Your task to perform on an android device: turn on the 24-hour format for clock Image 0: 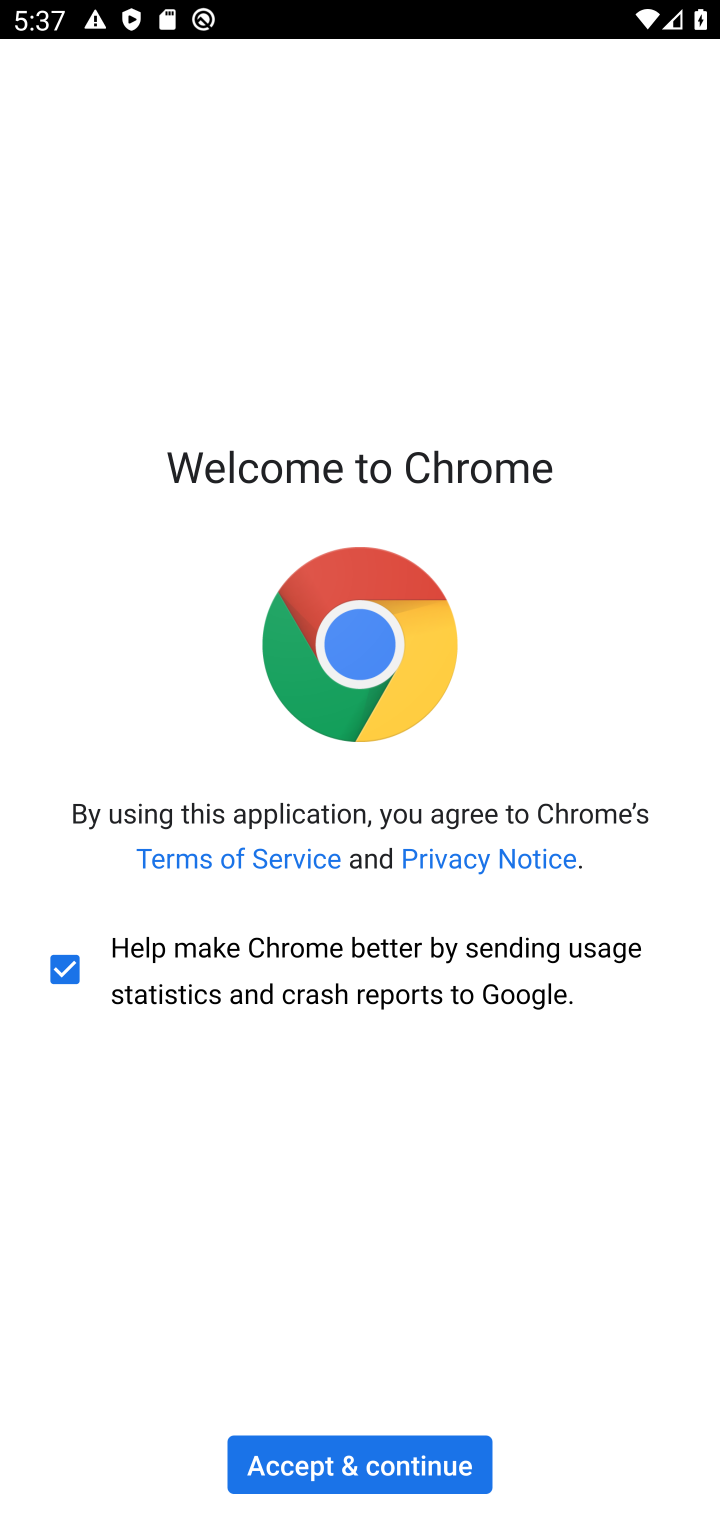
Step 0: press home button
Your task to perform on an android device: turn on the 24-hour format for clock Image 1: 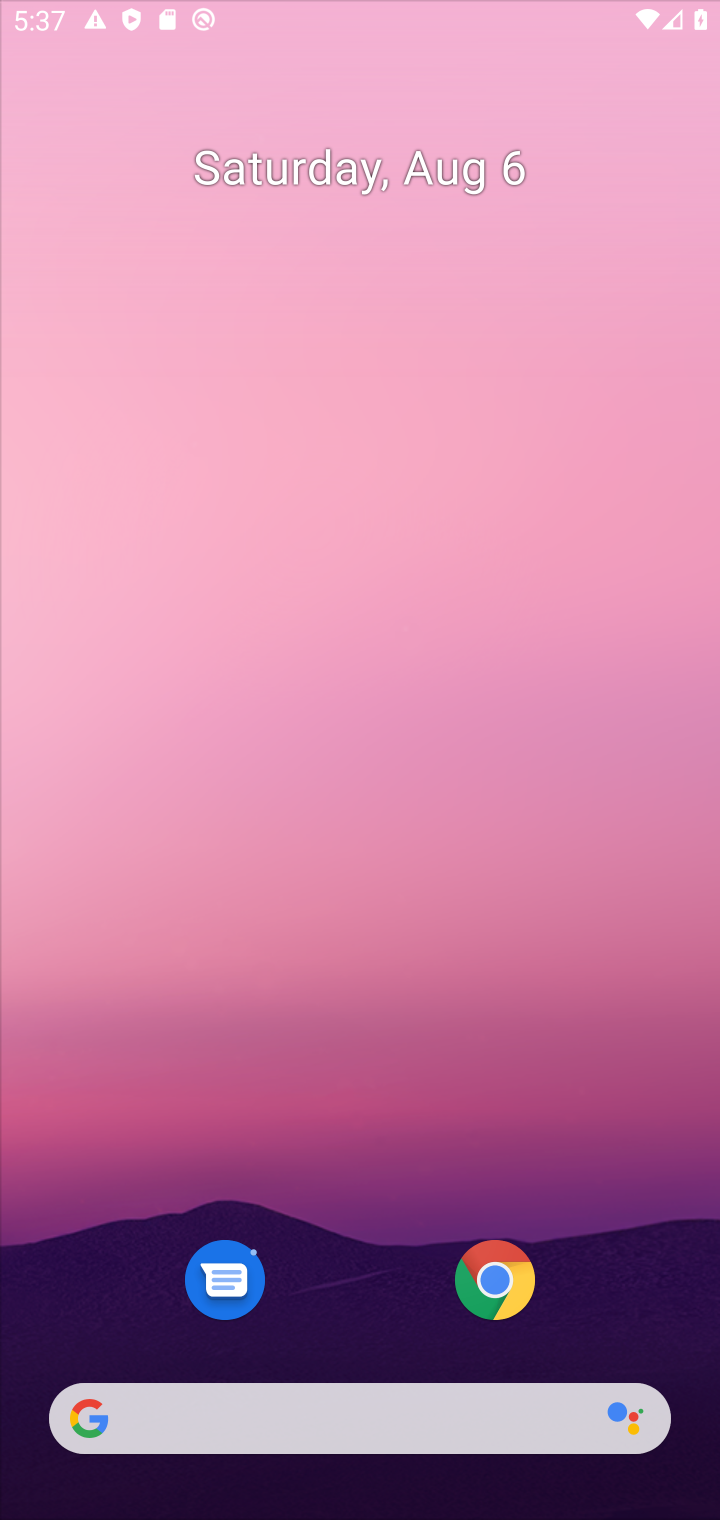
Step 1: drag from (513, 706) to (538, 232)
Your task to perform on an android device: turn on the 24-hour format for clock Image 2: 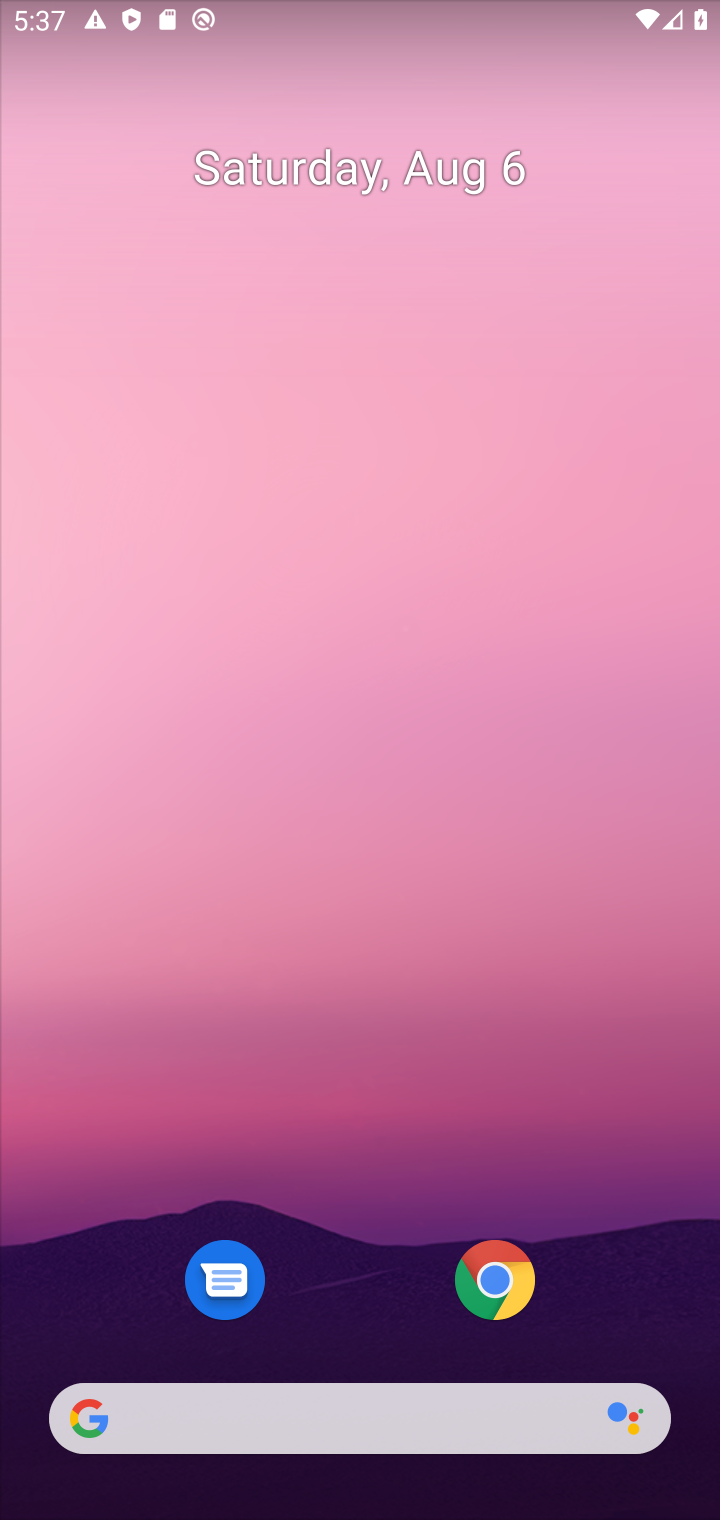
Step 2: drag from (268, 1423) to (624, 59)
Your task to perform on an android device: turn on the 24-hour format for clock Image 3: 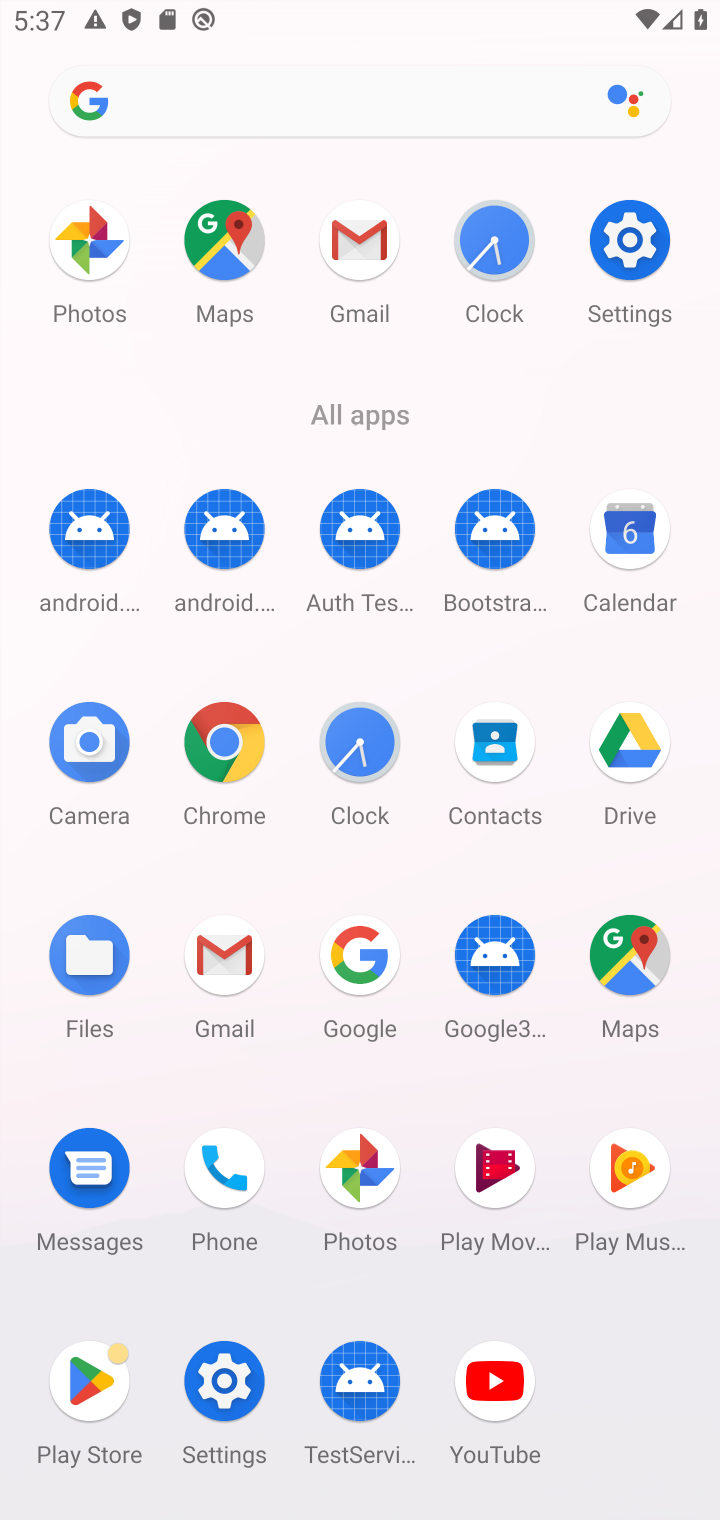
Step 3: click (241, 1367)
Your task to perform on an android device: turn on the 24-hour format for clock Image 4: 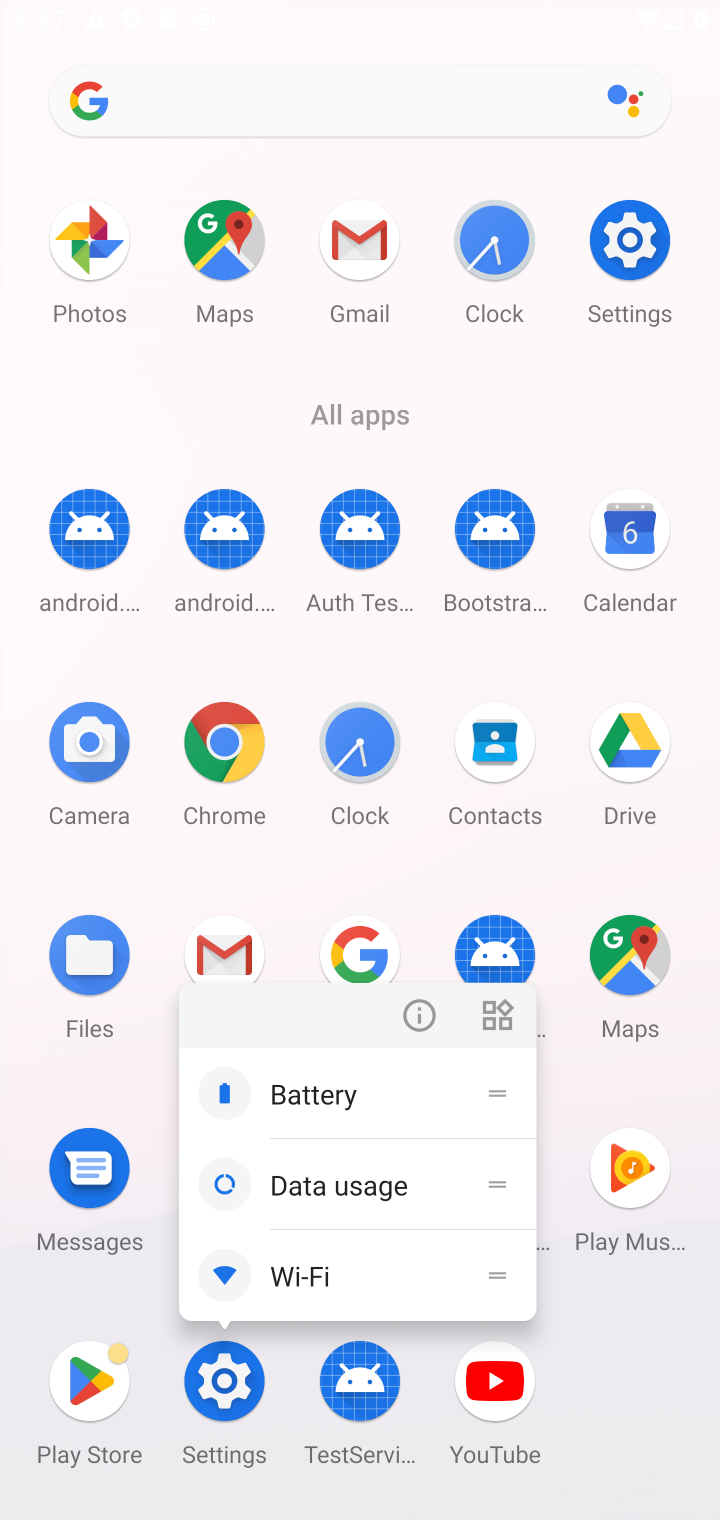
Step 4: click (226, 1412)
Your task to perform on an android device: turn on the 24-hour format for clock Image 5: 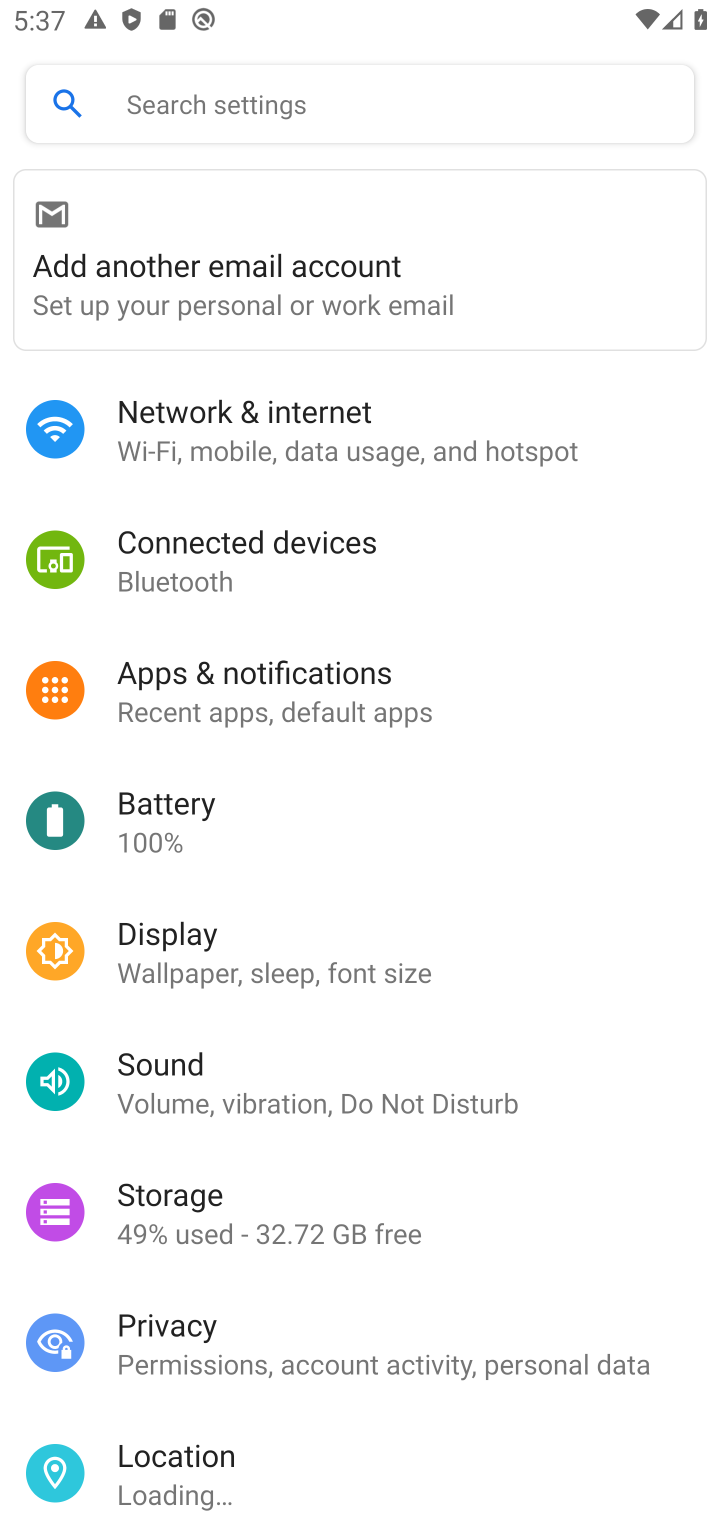
Step 5: drag from (301, 1371) to (430, 159)
Your task to perform on an android device: turn on the 24-hour format for clock Image 6: 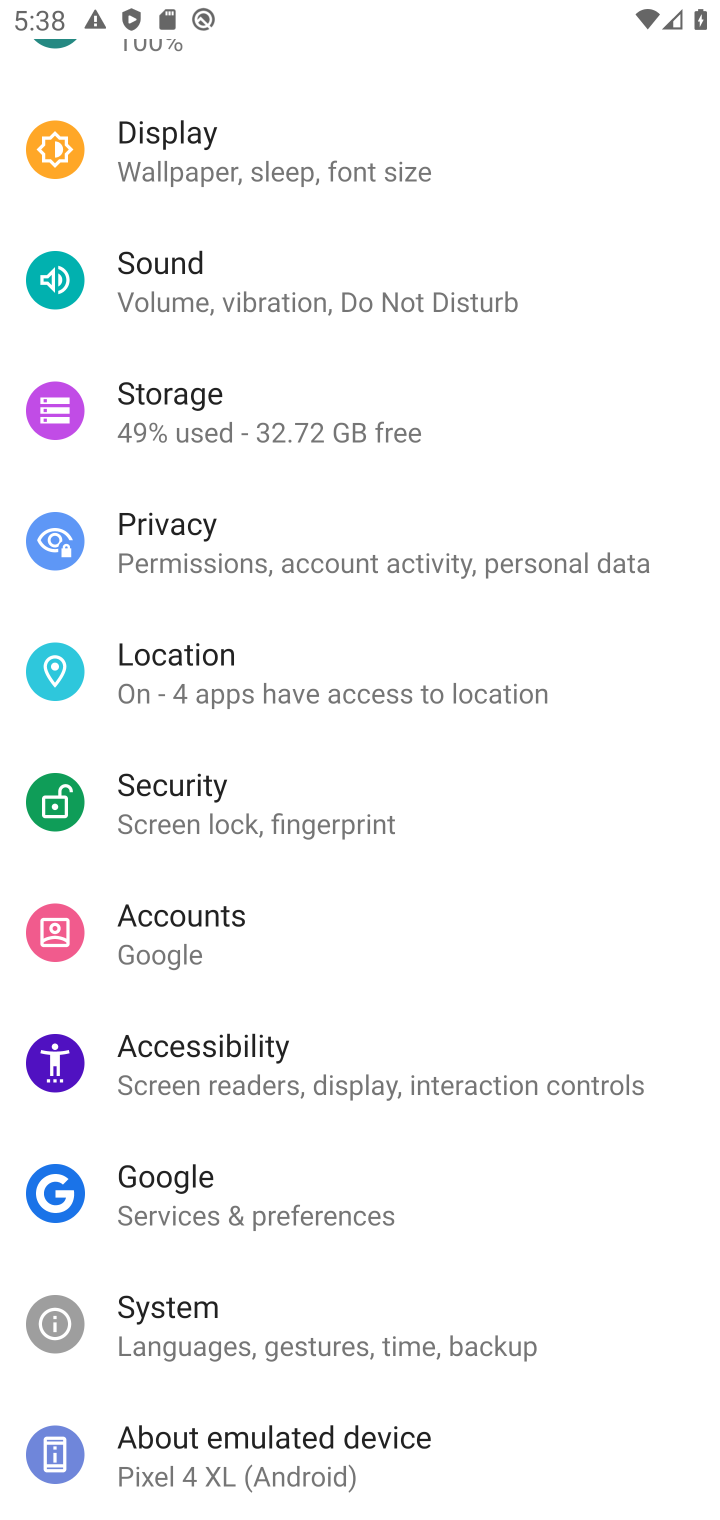
Step 6: click (275, 1354)
Your task to perform on an android device: turn on the 24-hour format for clock Image 7: 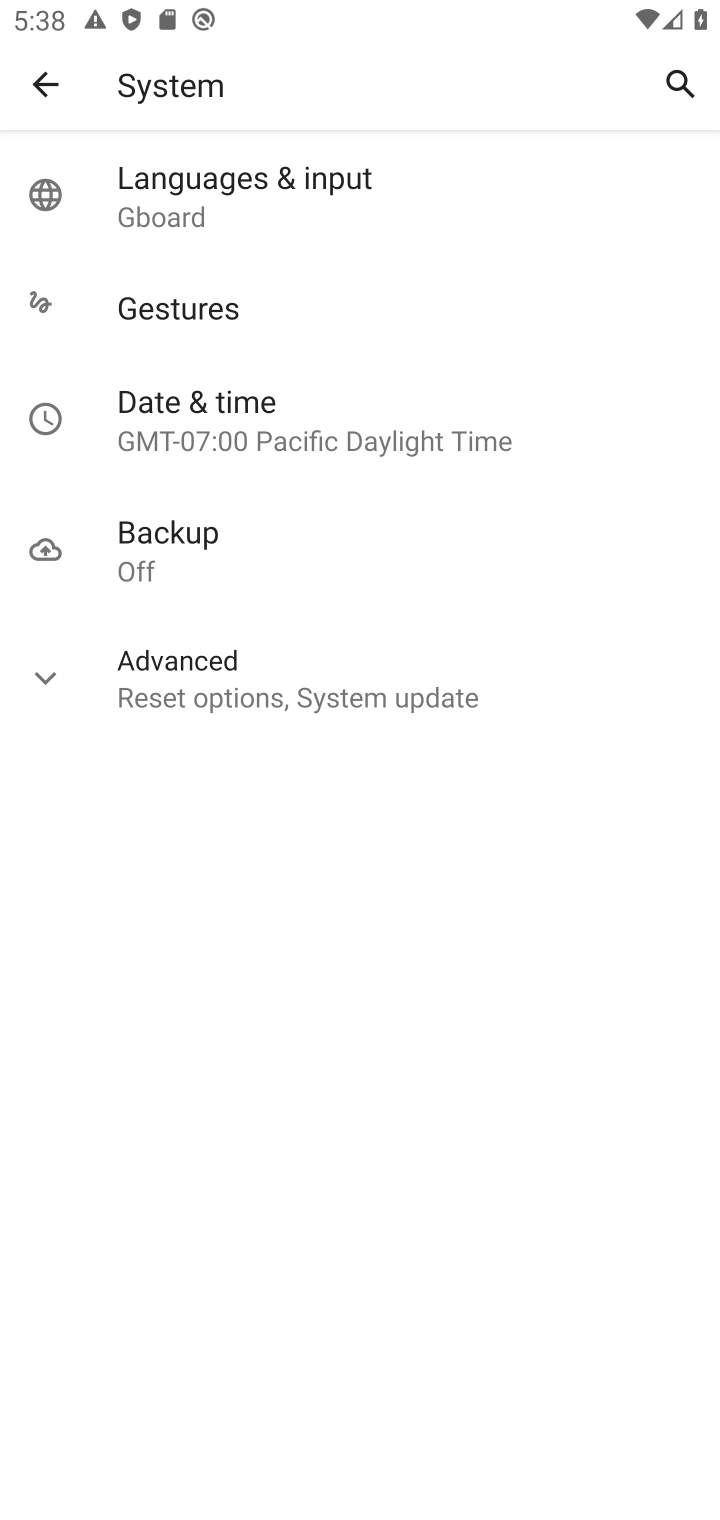
Step 7: click (258, 466)
Your task to perform on an android device: turn on the 24-hour format for clock Image 8: 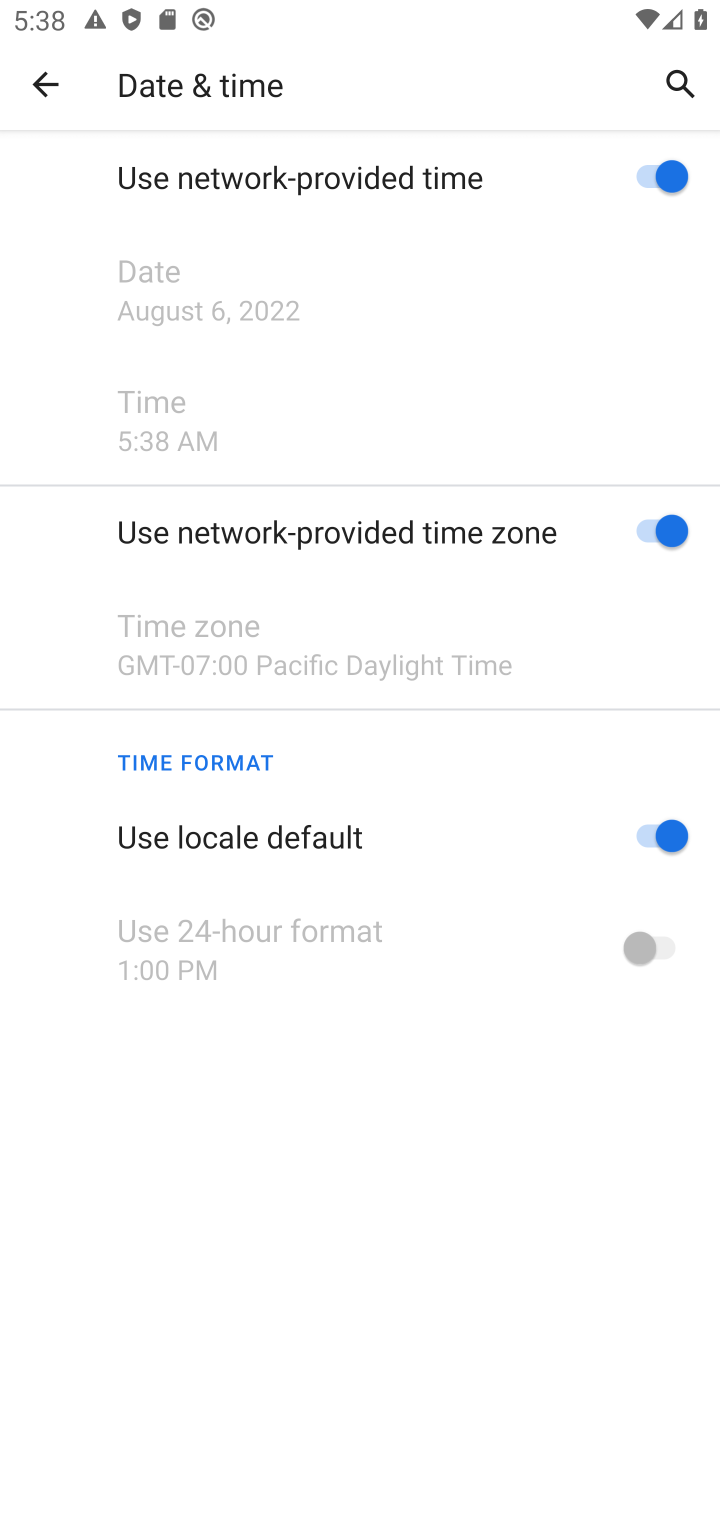
Step 8: click (632, 842)
Your task to perform on an android device: turn on the 24-hour format for clock Image 9: 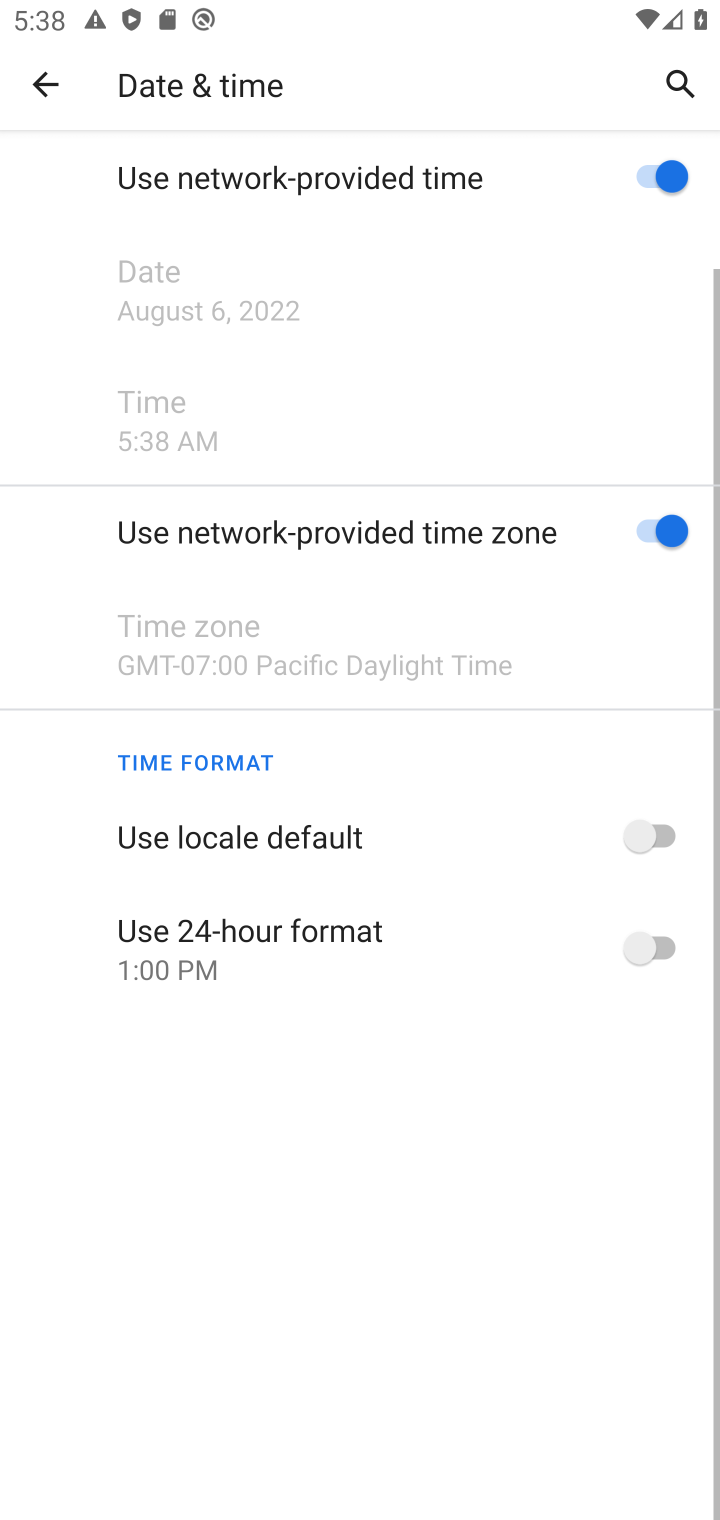
Step 9: click (651, 937)
Your task to perform on an android device: turn on the 24-hour format for clock Image 10: 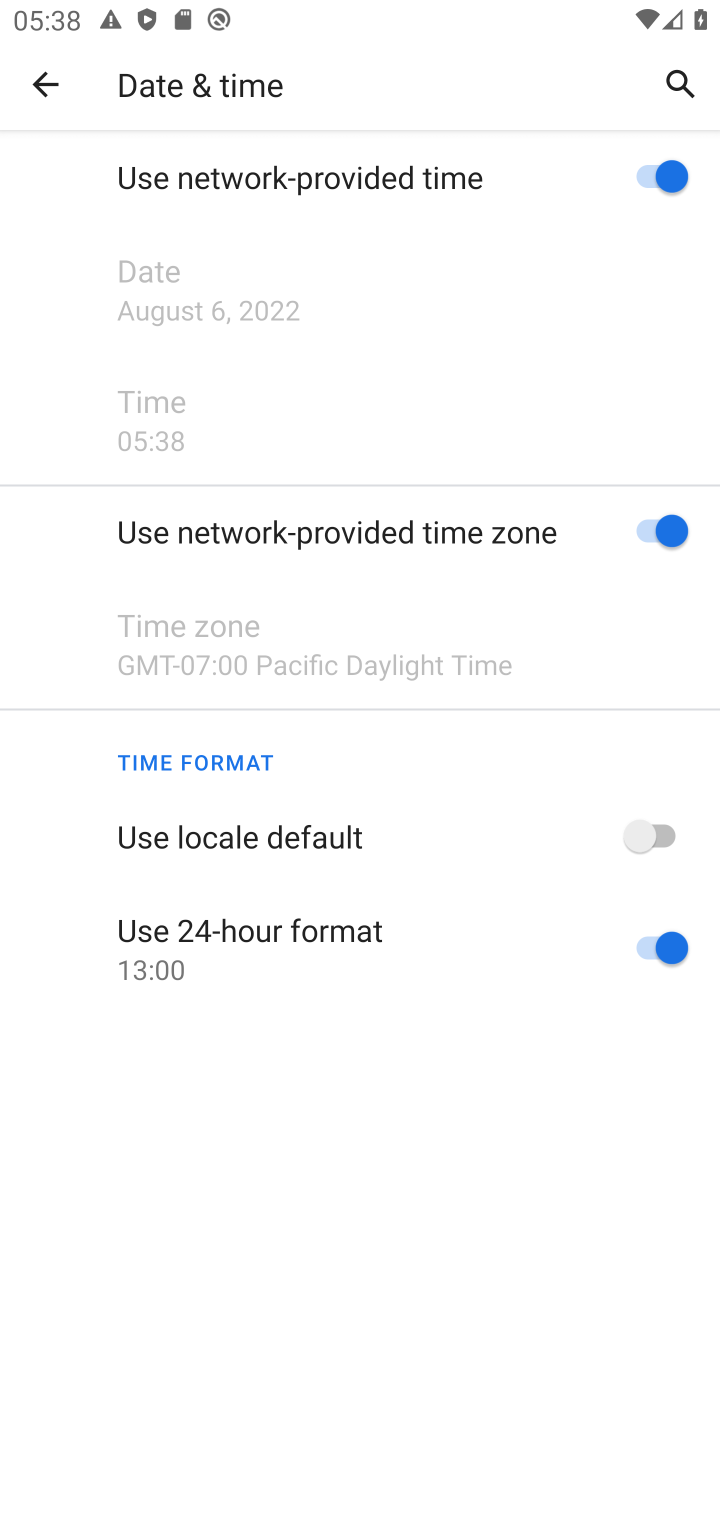
Step 10: task complete